Your task to perform on an android device: read, delete, or share a saved page in the chrome app Image 0: 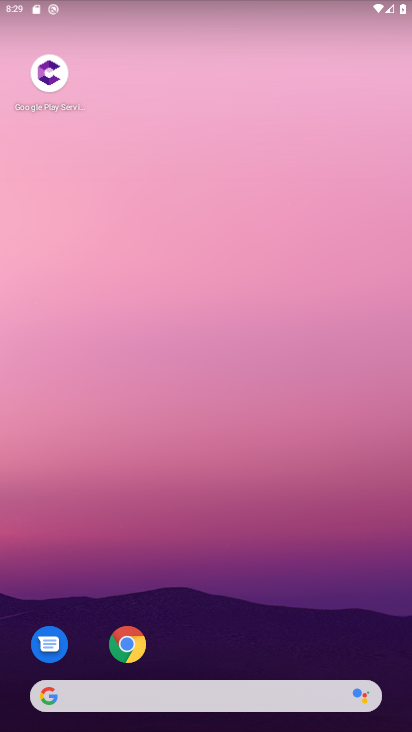
Step 0: drag from (295, 542) to (252, 217)
Your task to perform on an android device: read, delete, or share a saved page in the chrome app Image 1: 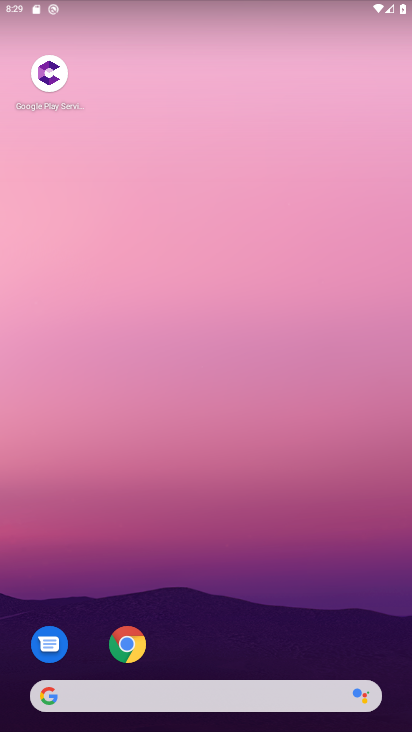
Step 1: drag from (302, 589) to (295, 181)
Your task to perform on an android device: read, delete, or share a saved page in the chrome app Image 2: 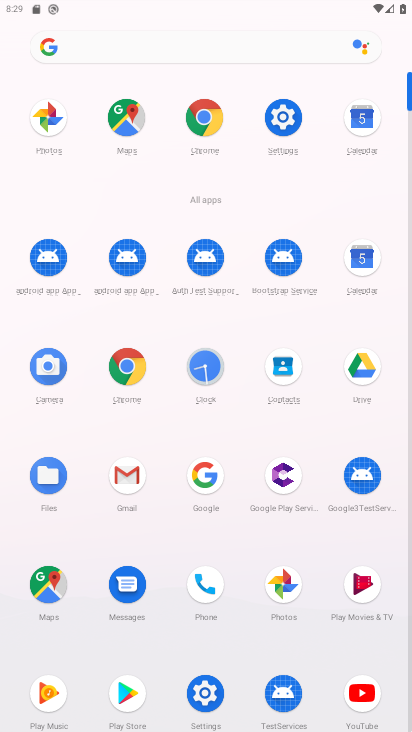
Step 2: click (128, 360)
Your task to perform on an android device: read, delete, or share a saved page in the chrome app Image 3: 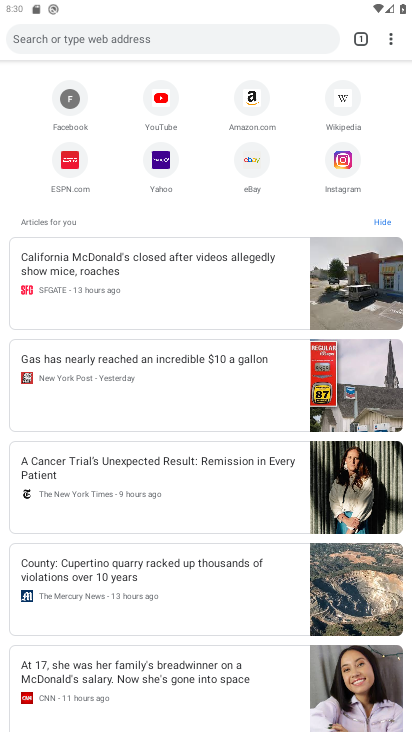
Step 3: drag from (393, 37) to (264, 144)
Your task to perform on an android device: read, delete, or share a saved page in the chrome app Image 4: 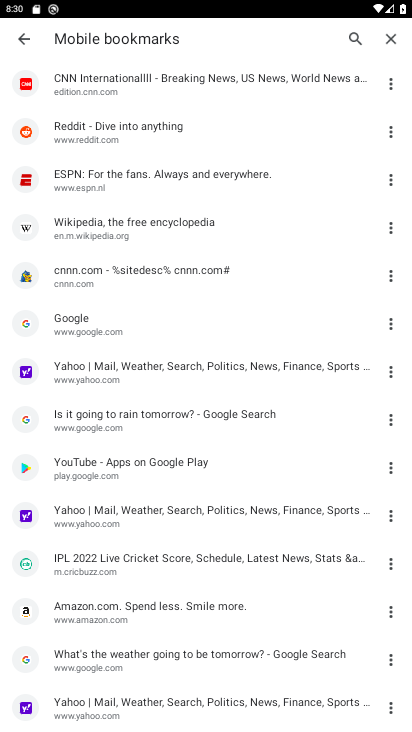
Step 4: click (395, 128)
Your task to perform on an android device: read, delete, or share a saved page in the chrome app Image 5: 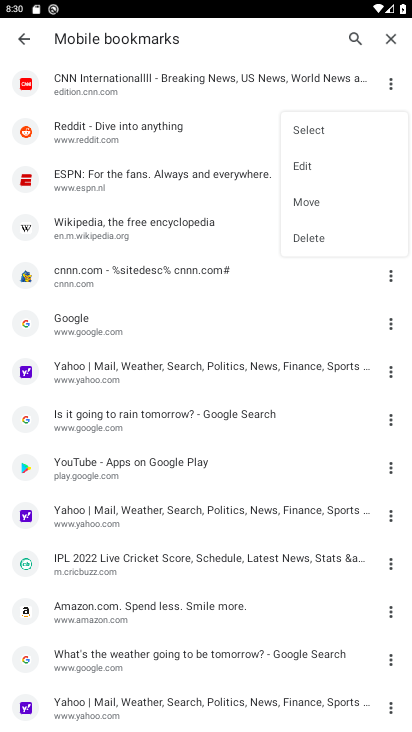
Step 5: click (309, 242)
Your task to perform on an android device: read, delete, or share a saved page in the chrome app Image 6: 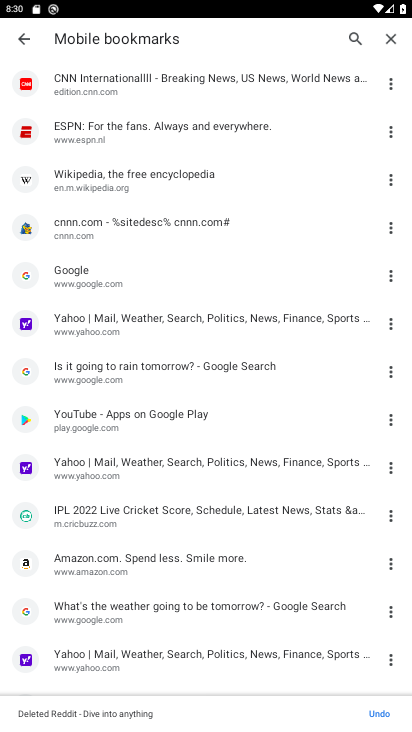
Step 6: task complete